Your task to perform on an android device: see creations saved in the google photos Image 0: 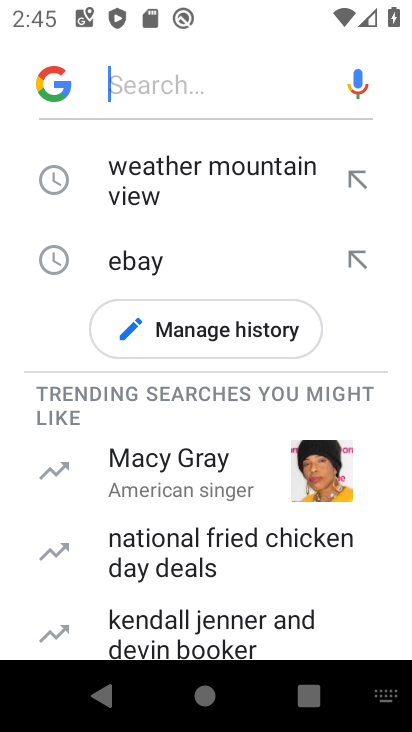
Step 0: press home button
Your task to perform on an android device: see creations saved in the google photos Image 1: 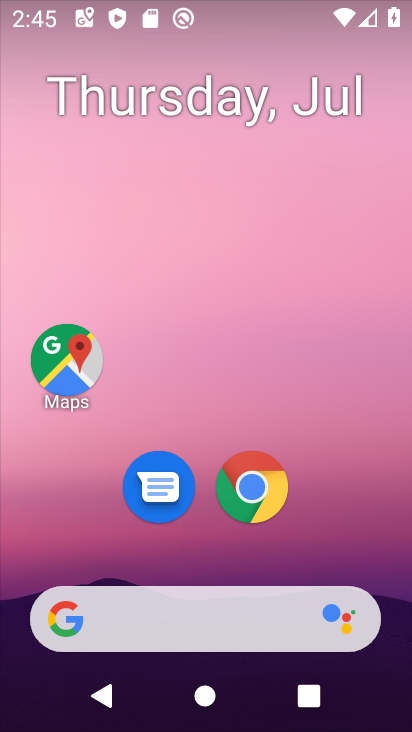
Step 1: drag from (353, 563) to (374, 174)
Your task to perform on an android device: see creations saved in the google photos Image 2: 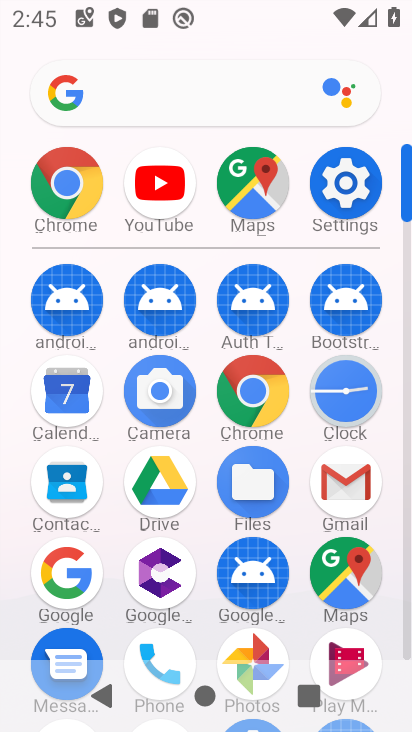
Step 2: drag from (375, 623) to (375, 331)
Your task to perform on an android device: see creations saved in the google photos Image 3: 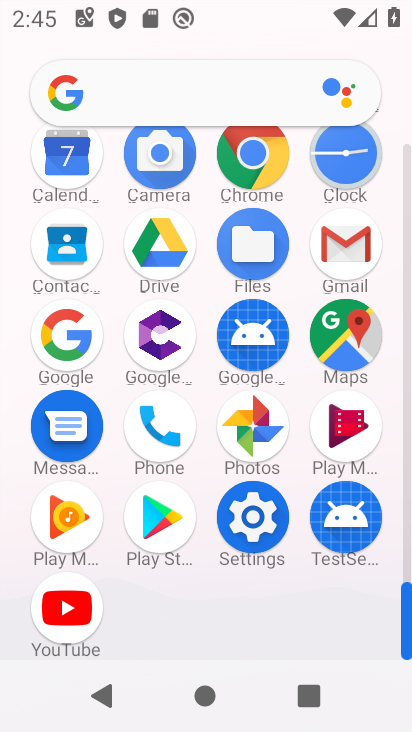
Step 3: click (265, 431)
Your task to perform on an android device: see creations saved in the google photos Image 4: 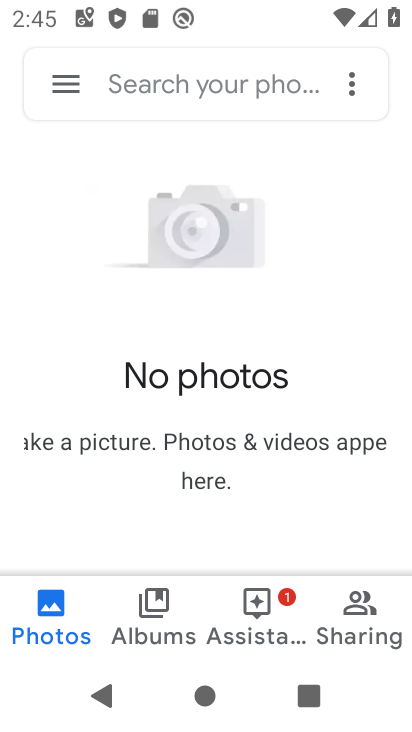
Step 4: click (208, 94)
Your task to perform on an android device: see creations saved in the google photos Image 5: 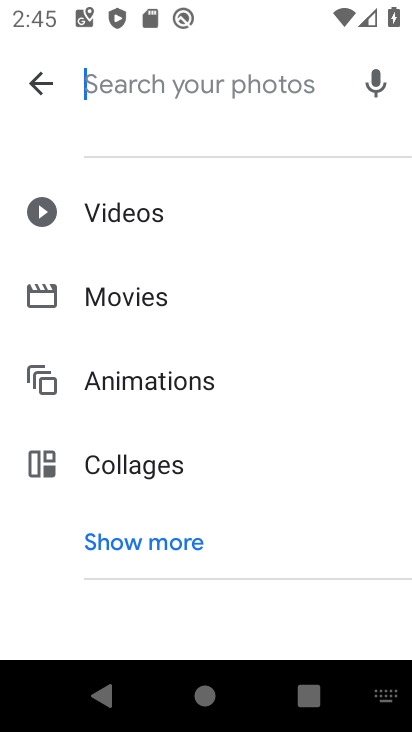
Step 5: drag from (291, 395) to (304, 298)
Your task to perform on an android device: see creations saved in the google photos Image 6: 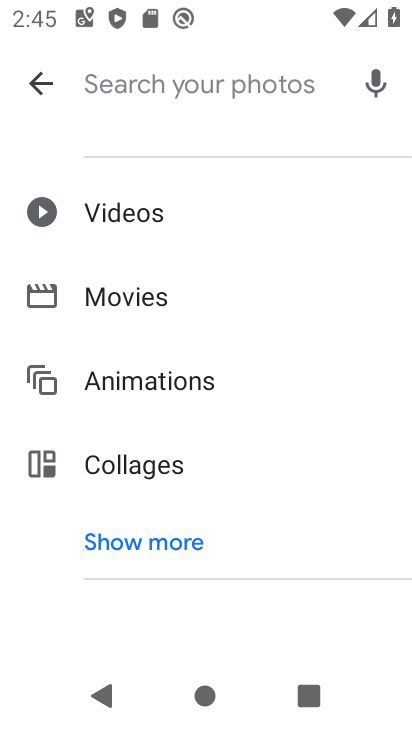
Step 6: click (214, 546)
Your task to perform on an android device: see creations saved in the google photos Image 7: 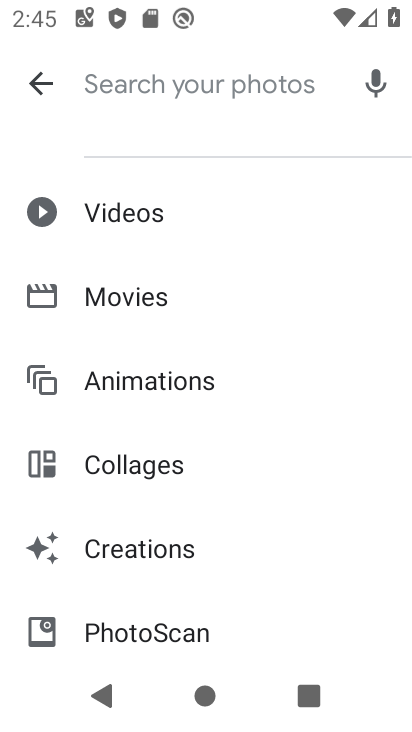
Step 7: drag from (328, 487) to (324, 291)
Your task to perform on an android device: see creations saved in the google photos Image 8: 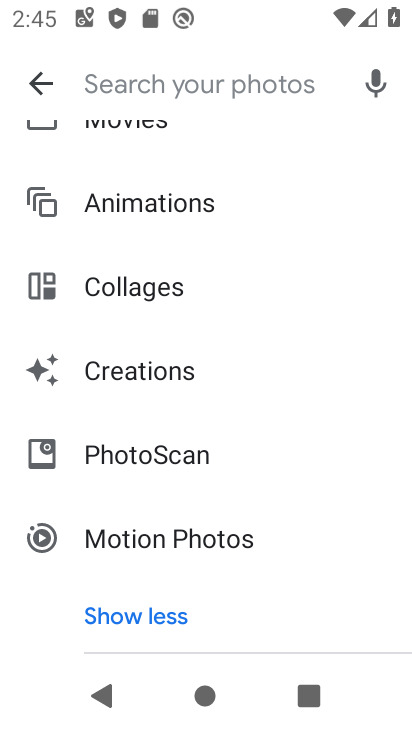
Step 8: drag from (311, 464) to (307, 339)
Your task to perform on an android device: see creations saved in the google photos Image 9: 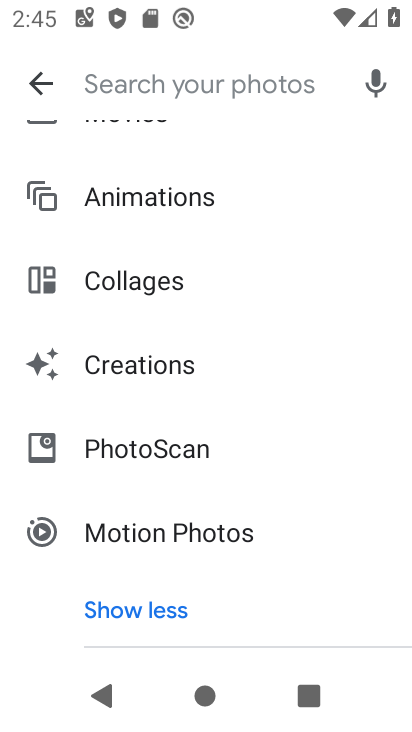
Step 9: click (204, 368)
Your task to perform on an android device: see creations saved in the google photos Image 10: 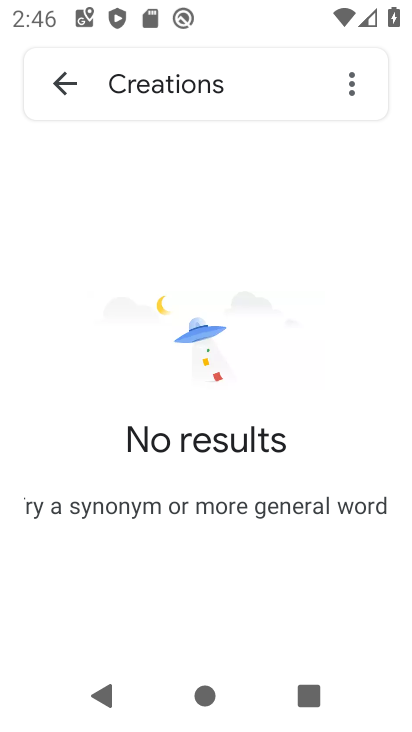
Step 10: task complete